Your task to perform on an android device: Go to eBay Image 0: 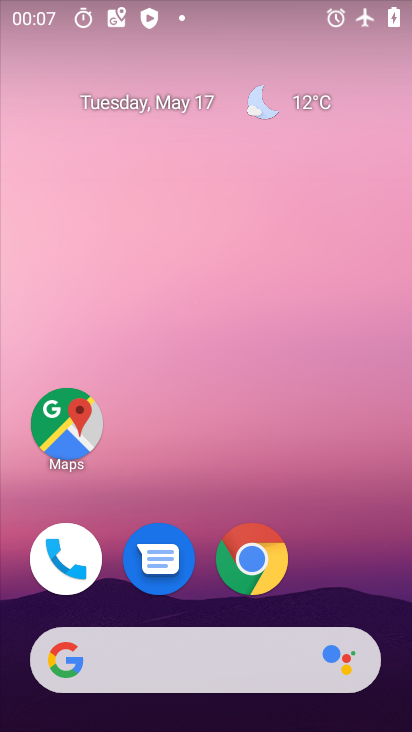
Step 0: click (260, 564)
Your task to perform on an android device: Go to eBay Image 1: 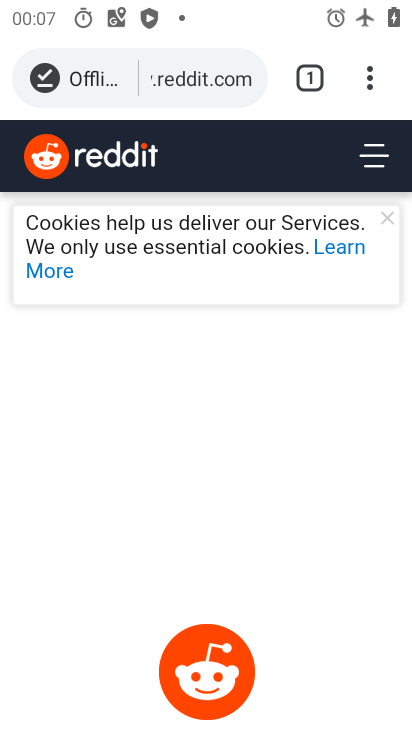
Step 1: click (221, 71)
Your task to perform on an android device: Go to eBay Image 2: 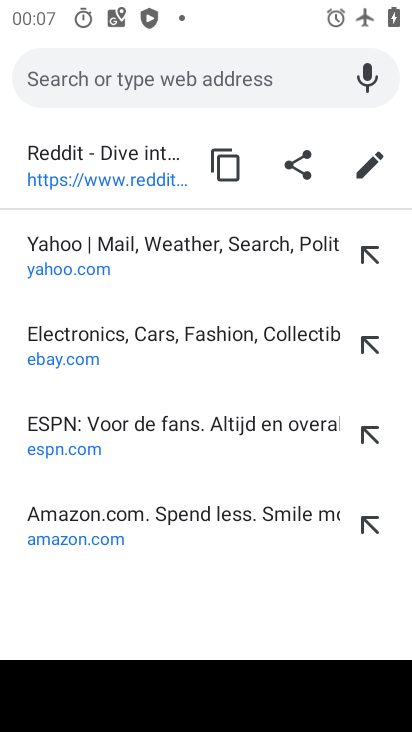
Step 2: click (63, 354)
Your task to perform on an android device: Go to eBay Image 3: 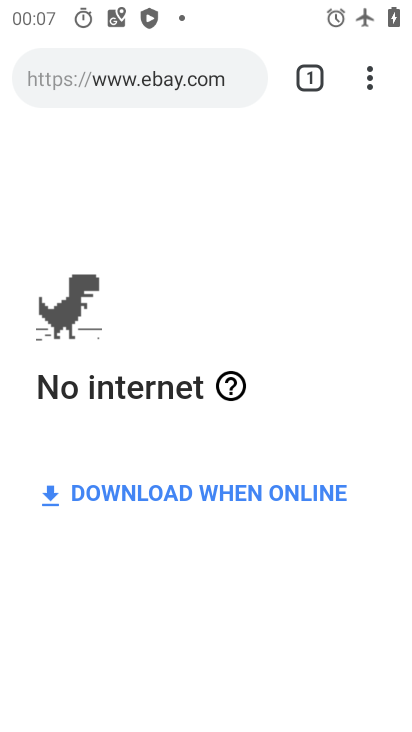
Step 3: task complete